Your task to perform on an android device: Do I have any events today? Image 0: 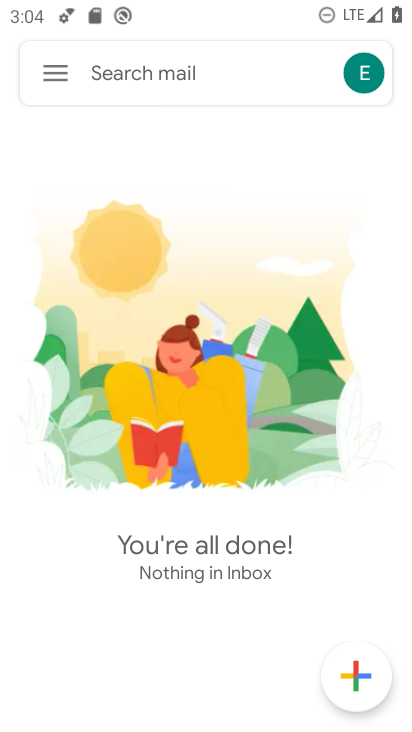
Step 0: press home button
Your task to perform on an android device: Do I have any events today? Image 1: 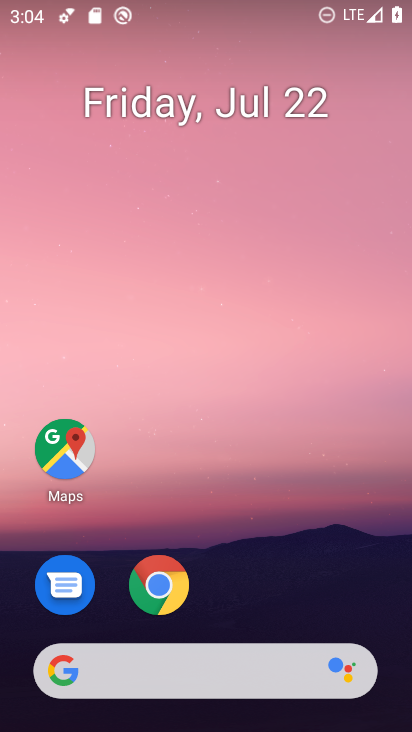
Step 1: drag from (241, 561) to (251, 221)
Your task to perform on an android device: Do I have any events today? Image 2: 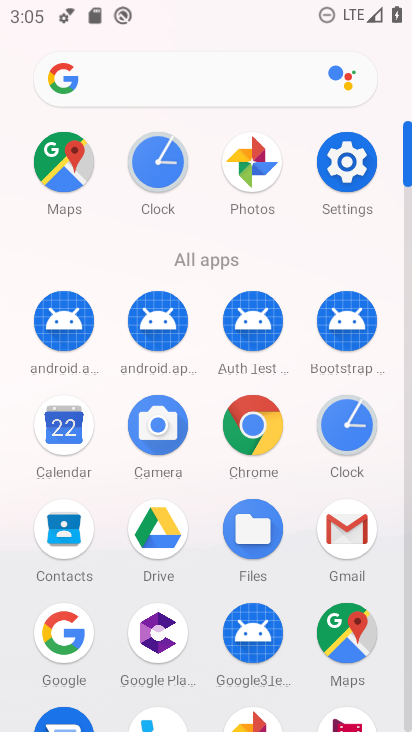
Step 2: click (59, 423)
Your task to perform on an android device: Do I have any events today? Image 3: 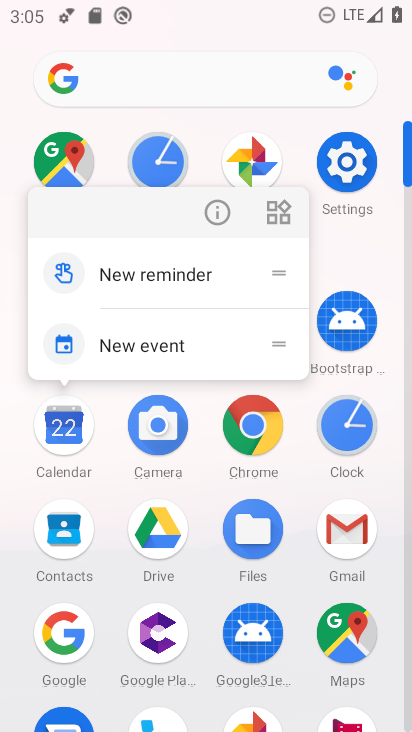
Step 3: click (59, 420)
Your task to perform on an android device: Do I have any events today? Image 4: 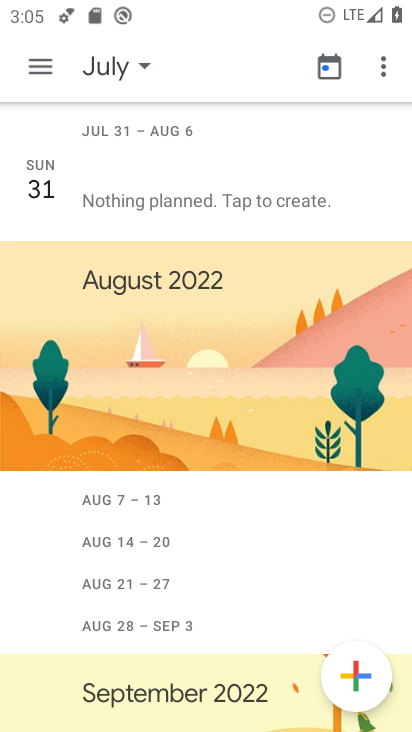
Step 4: drag from (170, 265) to (187, 675)
Your task to perform on an android device: Do I have any events today? Image 5: 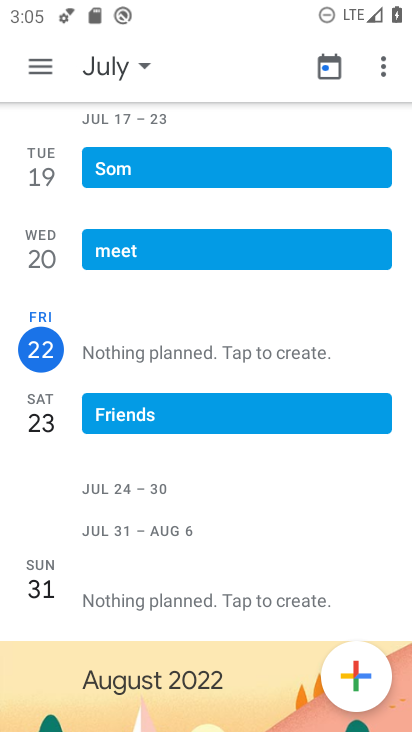
Step 5: click (50, 345)
Your task to perform on an android device: Do I have any events today? Image 6: 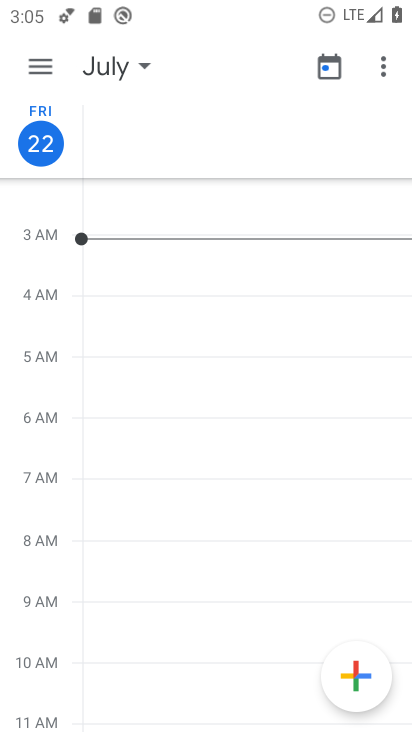
Step 6: task complete